Your task to perform on an android device: Go to location settings Image 0: 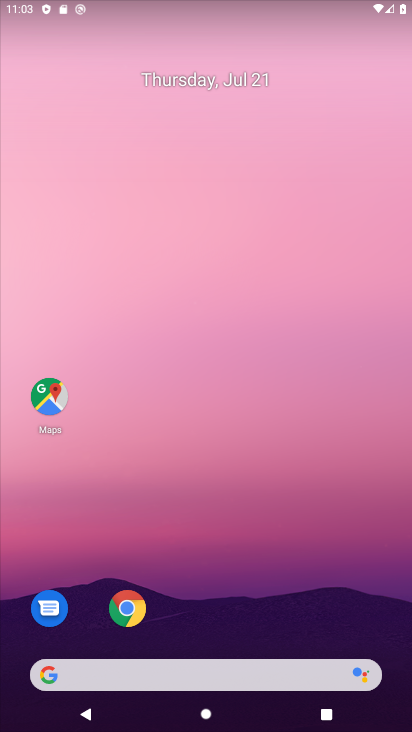
Step 0: drag from (326, 590) to (286, 143)
Your task to perform on an android device: Go to location settings Image 1: 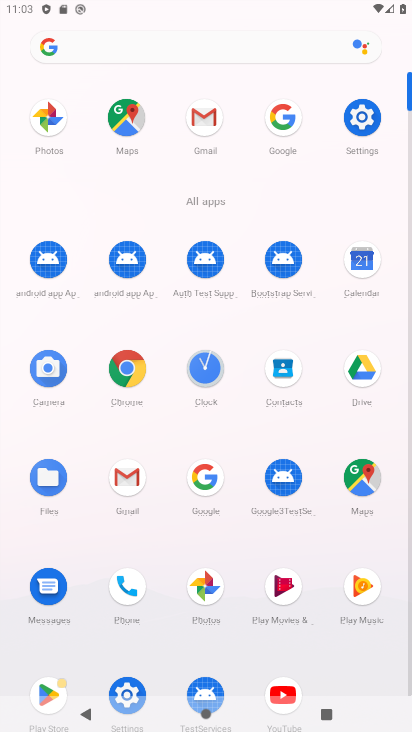
Step 1: click (131, 685)
Your task to perform on an android device: Go to location settings Image 2: 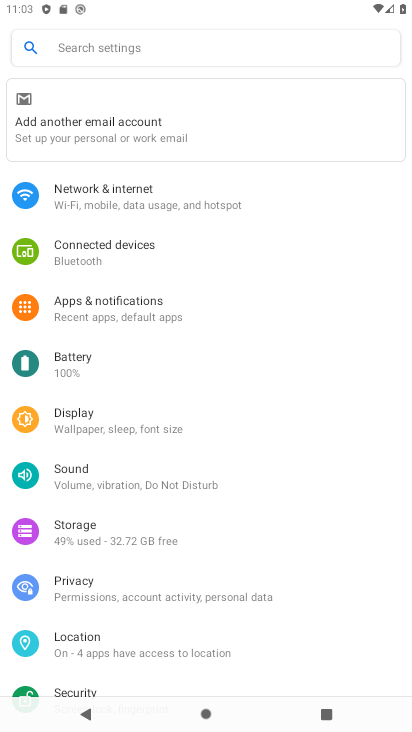
Step 2: click (55, 640)
Your task to perform on an android device: Go to location settings Image 3: 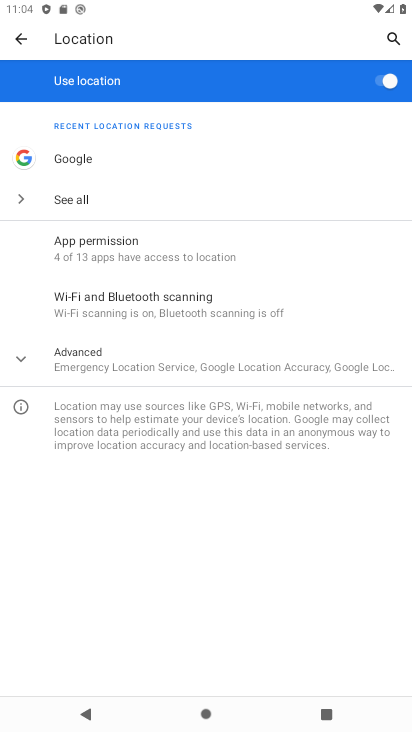
Step 3: task complete